Your task to perform on an android device: toggle priority inbox in the gmail app Image 0: 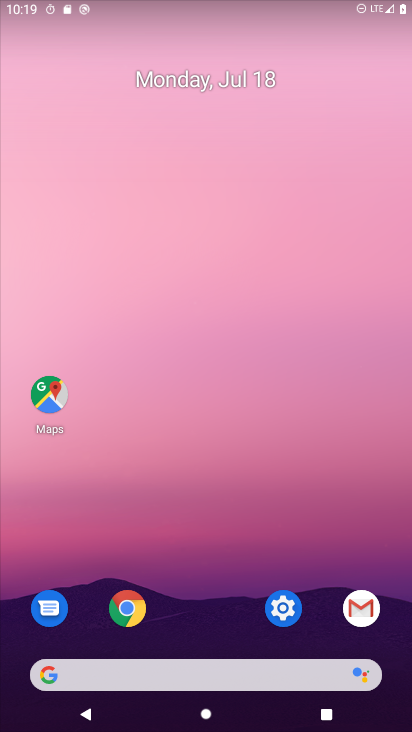
Step 0: click (361, 620)
Your task to perform on an android device: toggle priority inbox in the gmail app Image 1: 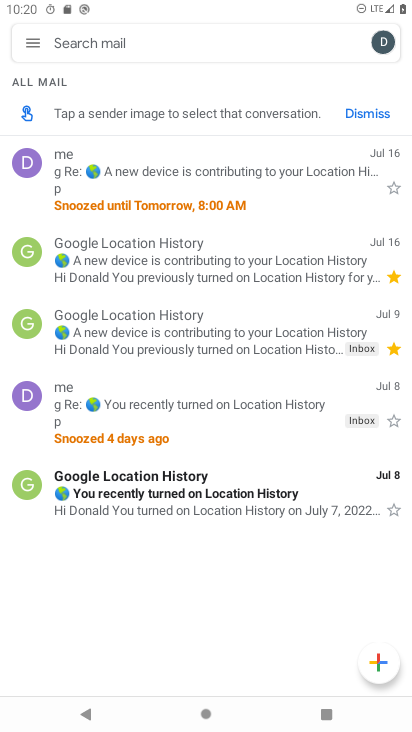
Step 1: click (26, 45)
Your task to perform on an android device: toggle priority inbox in the gmail app Image 2: 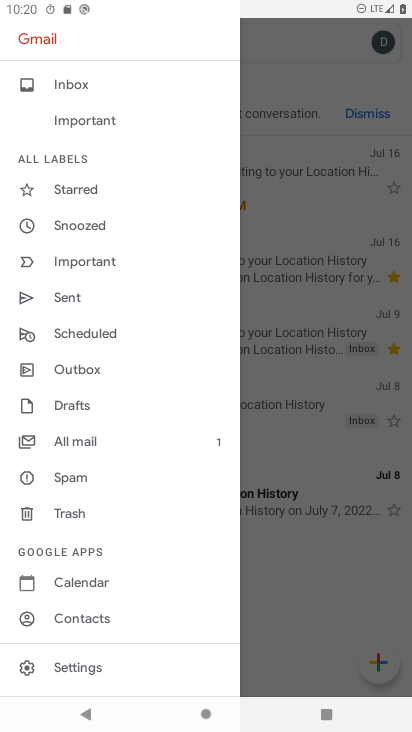
Step 2: click (80, 661)
Your task to perform on an android device: toggle priority inbox in the gmail app Image 3: 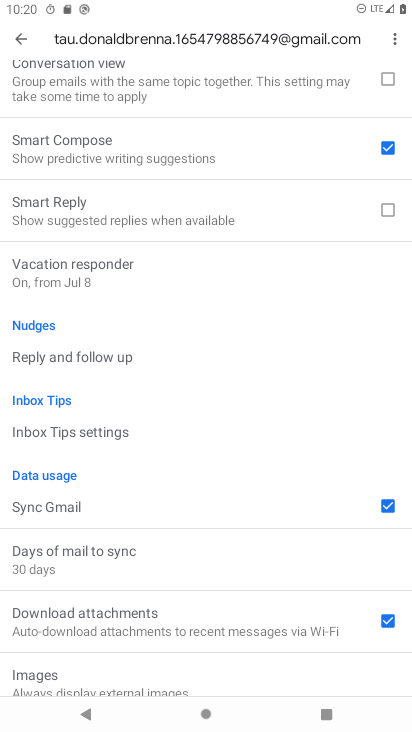
Step 3: drag from (95, 106) to (108, 593)
Your task to perform on an android device: toggle priority inbox in the gmail app Image 4: 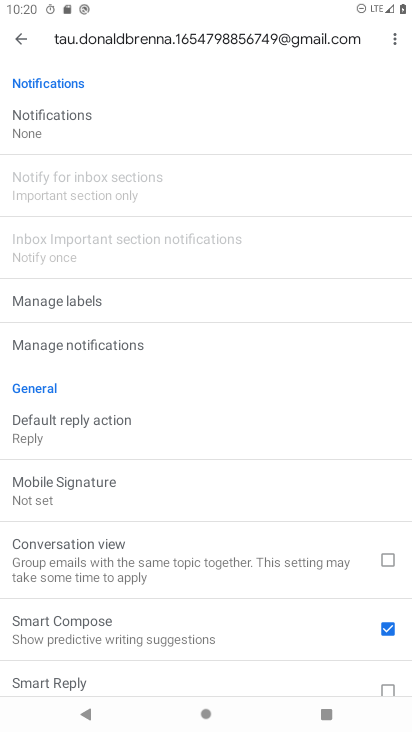
Step 4: drag from (76, 118) to (54, 441)
Your task to perform on an android device: toggle priority inbox in the gmail app Image 5: 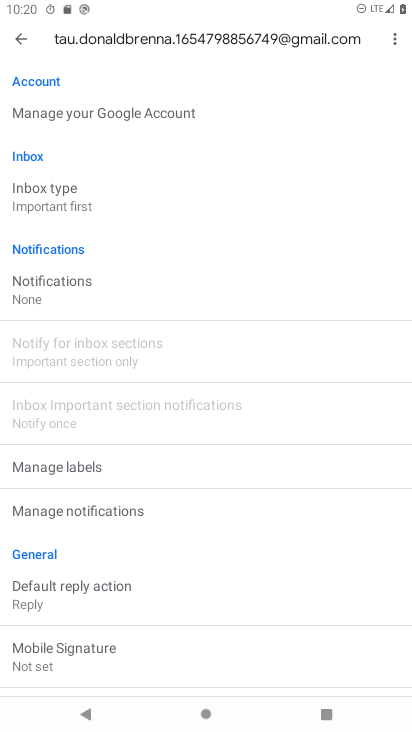
Step 5: drag from (67, 256) to (32, 371)
Your task to perform on an android device: toggle priority inbox in the gmail app Image 6: 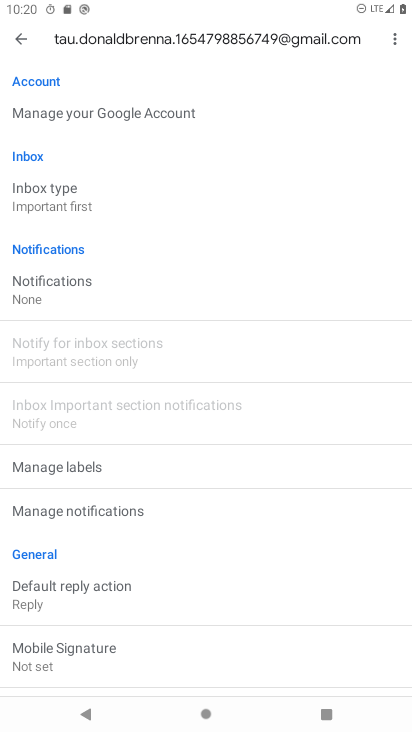
Step 6: click (87, 200)
Your task to perform on an android device: toggle priority inbox in the gmail app Image 7: 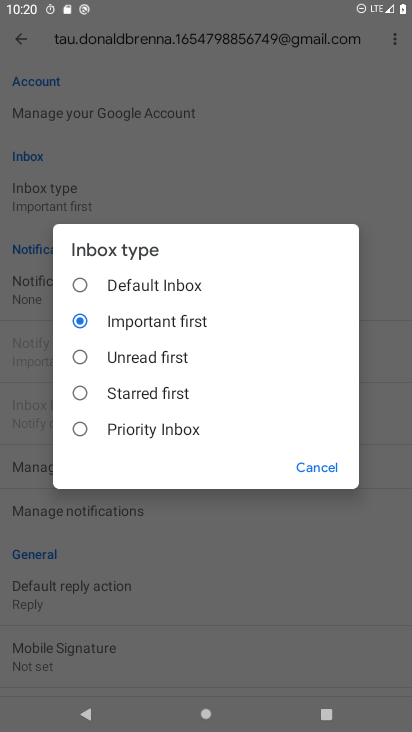
Step 7: click (125, 439)
Your task to perform on an android device: toggle priority inbox in the gmail app Image 8: 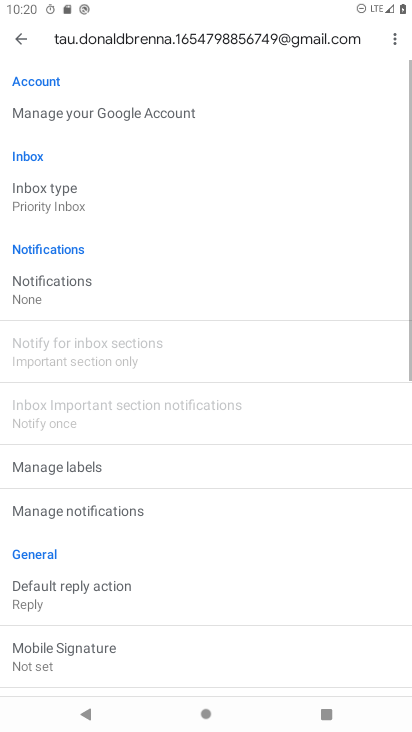
Step 8: click (72, 204)
Your task to perform on an android device: toggle priority inbox in the gmail app Image 9: 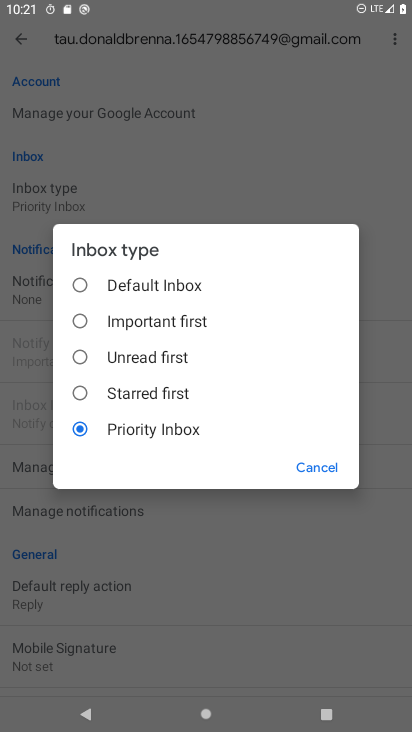
Step 9: task complete